Your task to perform on an android device: check android version Image 0: 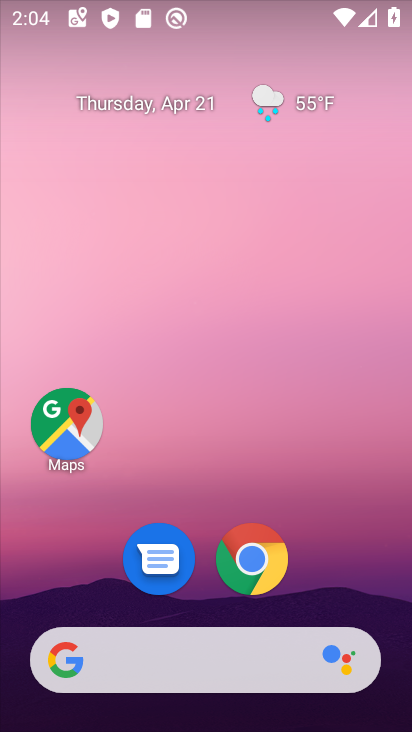
Step 0: drag from (203, 517) to (202, 120)
Your task to perform on an android device: check android version Image 1: 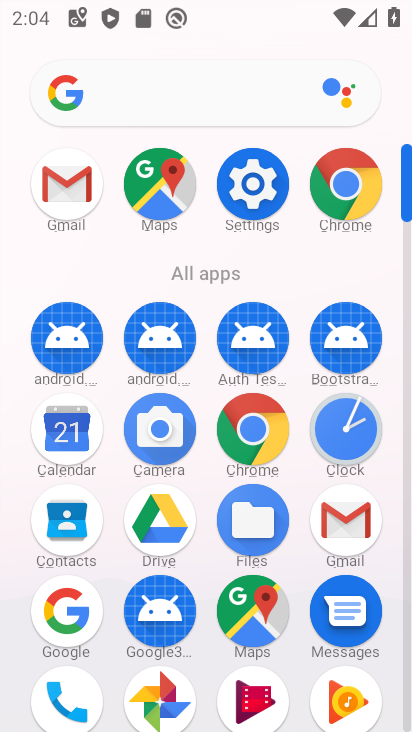
Step 1: click (258, 189)
Your task to perform on an android device: check android version Image 2: 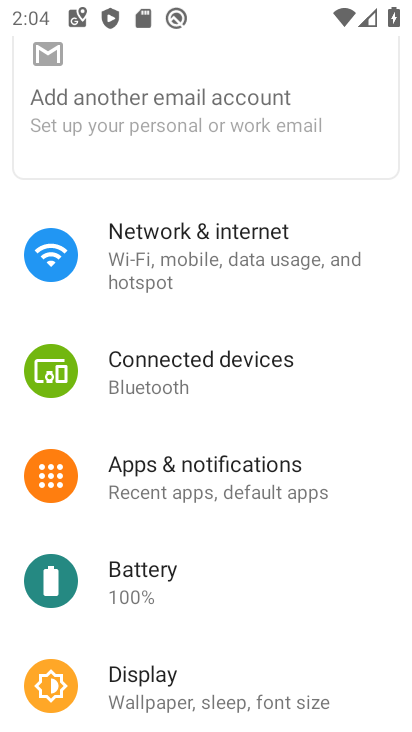
Step 2: drag from (286, 553) to (261, 22)
Your task to perform on an android device: check android version Image 3: 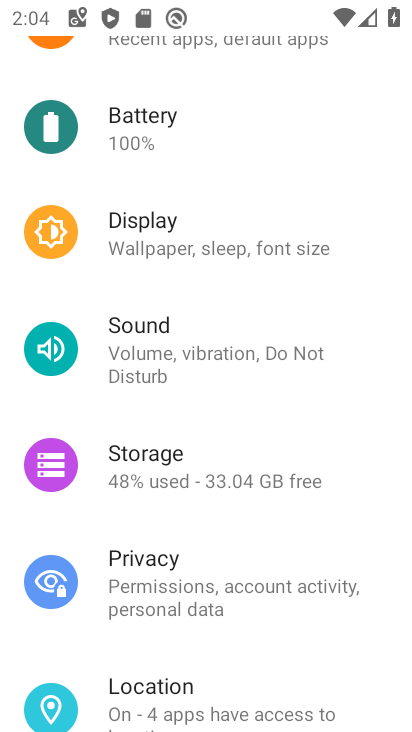
Step 3: drag from (244, 554) to (216, 19)
Your task to perform on an android device: check android version Image 4: 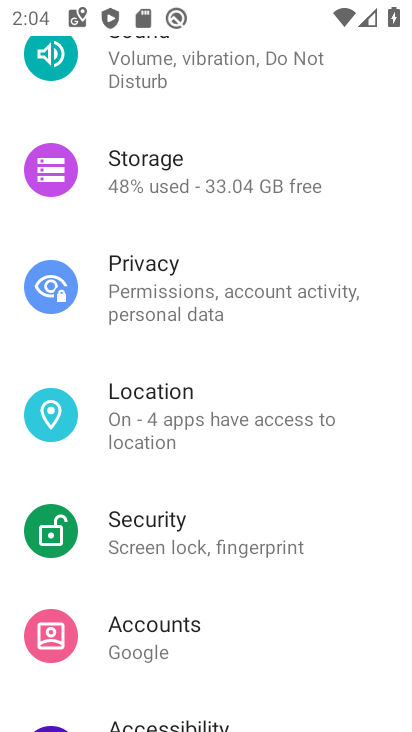
Step 4: drag from (237, 579) to (204, 19)
Your task to perform on an android device: check android version Image 5: 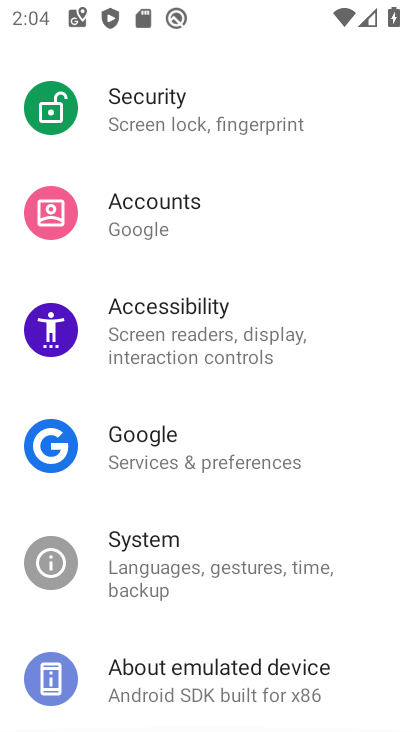
Step 5: click (198, 677)
Your task to perform on an android device: check android version Image 6: 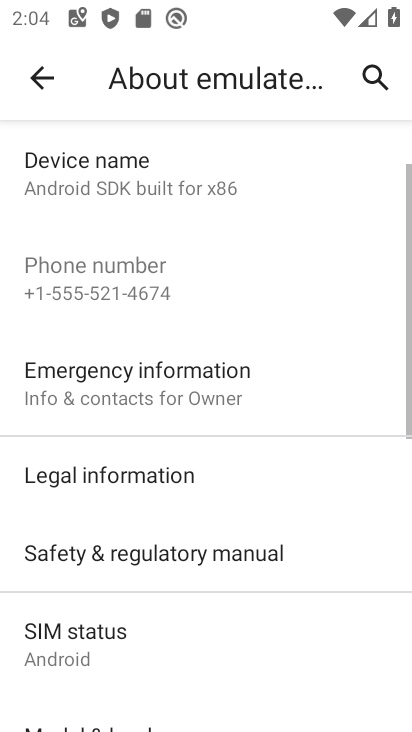
Step 6: drag from (218, 587) to (204, 190)
Your task to perform on an android device: check android version Image 7: 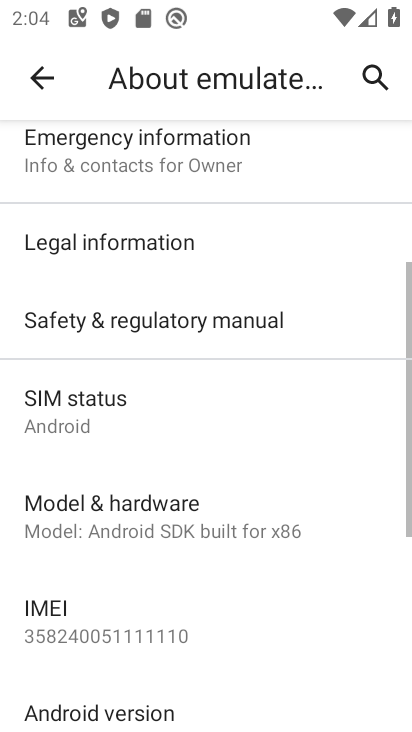
Step 7: drag from (166, 692) to (176, 360)
Your task to perform on an android device: check android version Image 8: 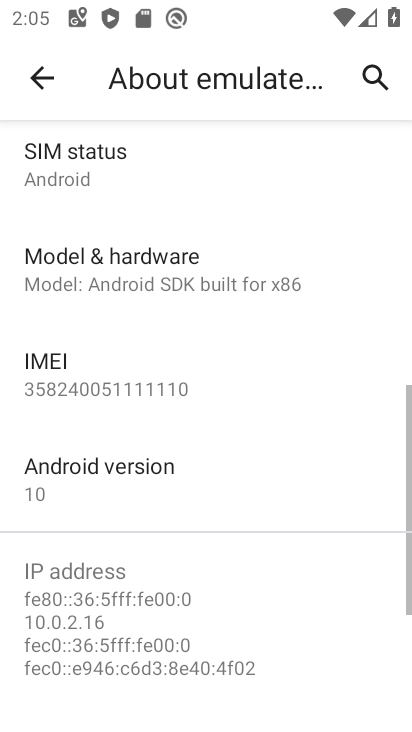
Step 8: click (82, 493)
Your task to perform on an android device: check android version Image 9: 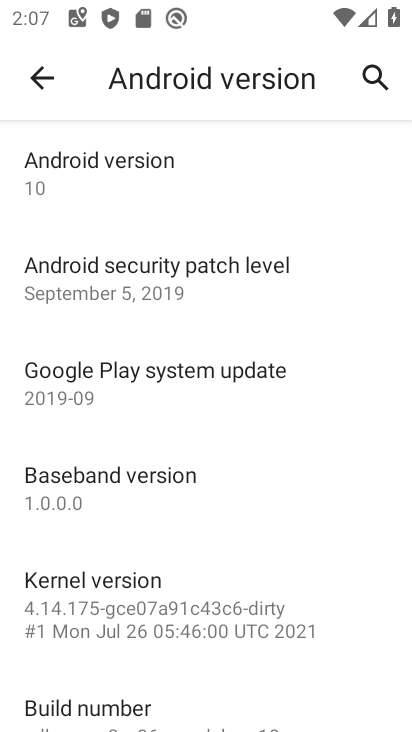
Step 9: task complete